Your task to perform on an android device: set an alarm Image 0: 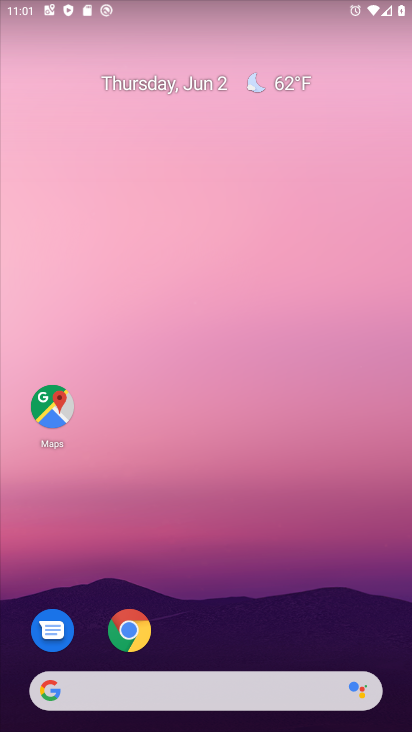
Step 0: press home button
Your task to perform on an android device: set an alarm Image 1: 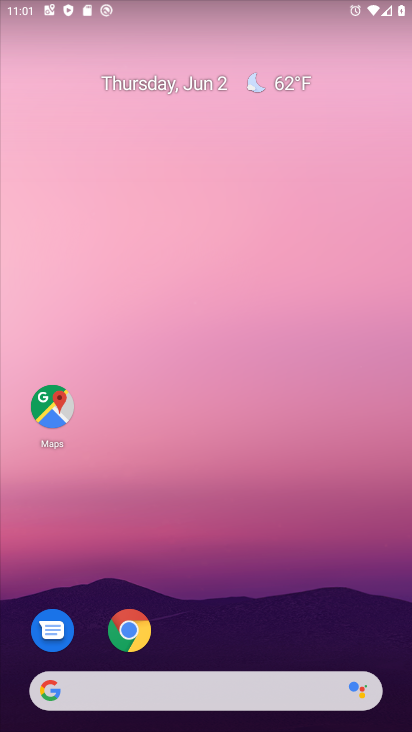
Step 1: drag from (181, 679) to (311, 211)
Your task to perform on an android device: set an alarm Image 2: 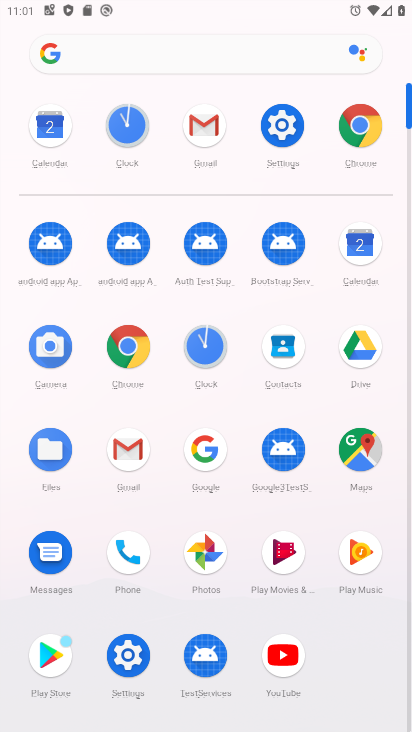
Step 2: click (129, 131)
Your task to perform on an android device: set an alarm Image 3: 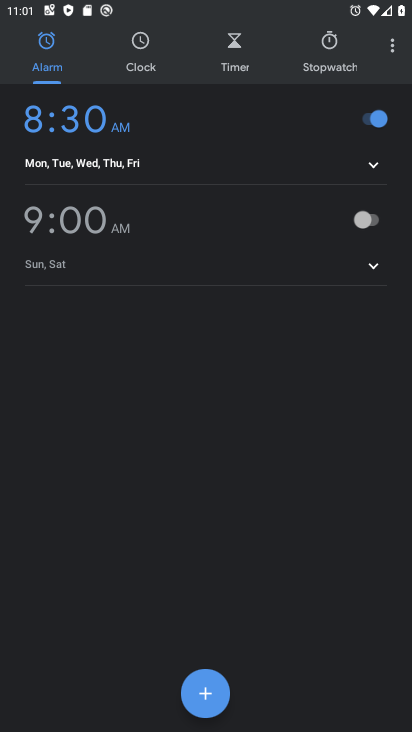
Step 3: click (369, 218)
Your task to perform on an android device: set an alarm Image 4: 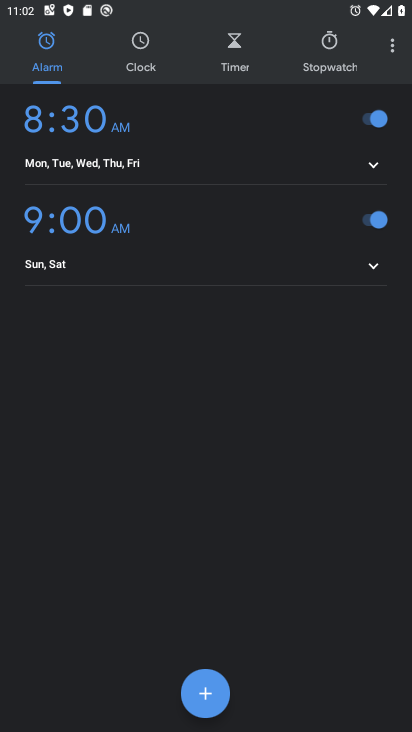
Step 4: task complete